Your task to perform on an android device: show emergency info Image 0: 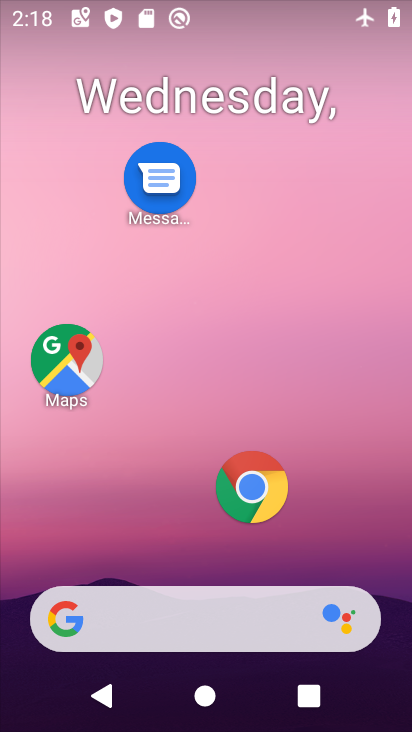
Step 0: drag from (207, 567) to (213, 147)
Your task to perform on an android device: show emergency info Image 1: 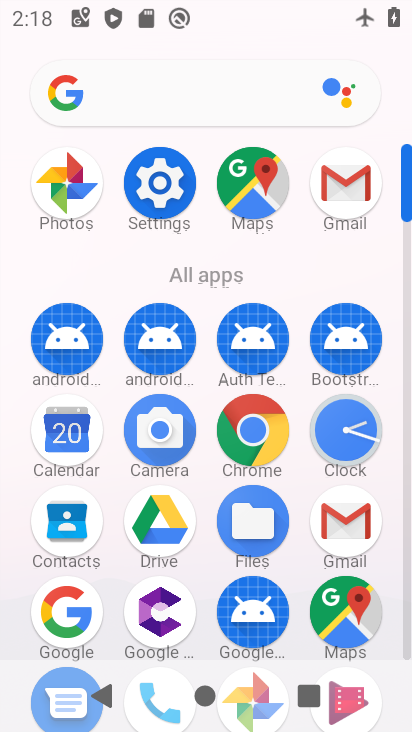
Step 1: click (157, 186)
Your task to perform on an android device: show emergency info Image 2: 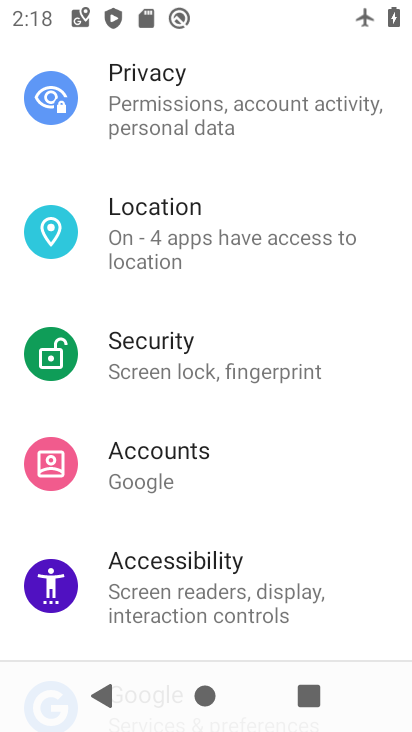
Step 2: drag from (205, 529) to (214, 165)
Your task to perform on an android device: show emergency info Image 3: 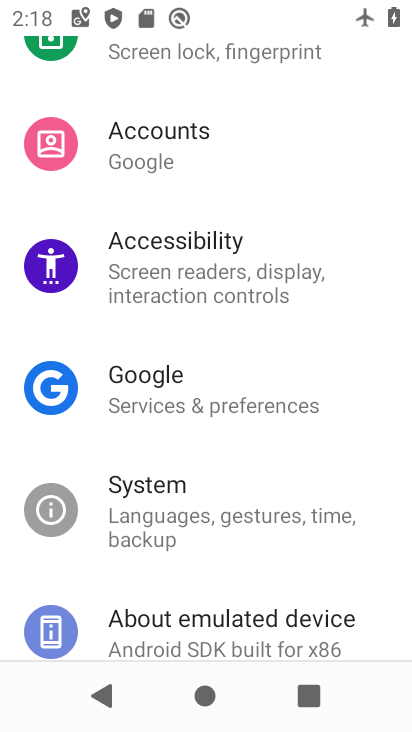
Step 3: drag from (181, 575) to (191, 250)
Your task to perform on an android device: show emergency info Image 4: 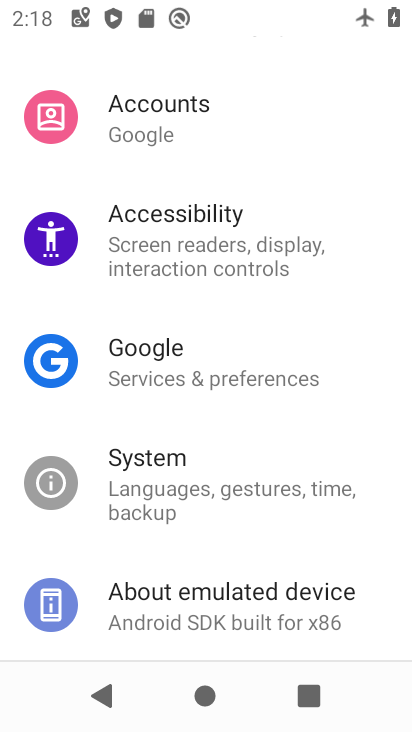
Step 4: click (223, 622)
Your task to perform on an android device: show emergency info Image 5: 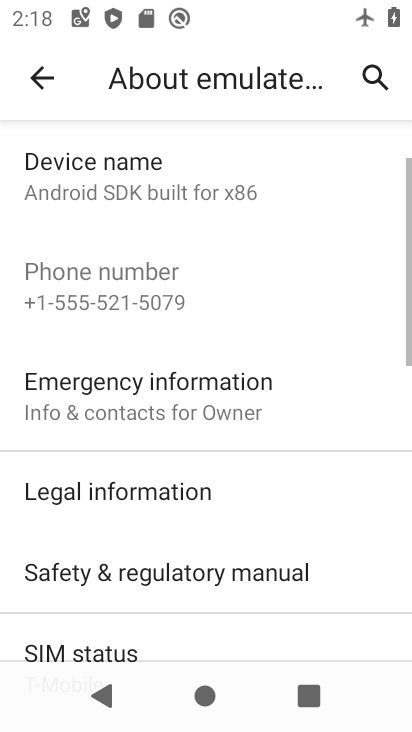
Step 5: click (162, 375)
Your task to perform on an android device: show emergency info Image 6: 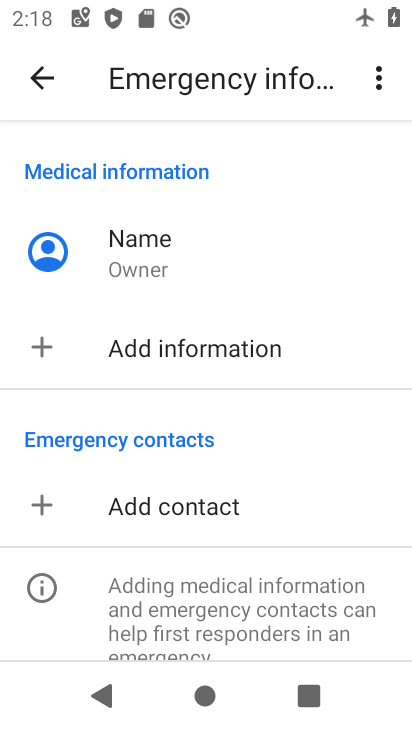
Step 6: task complete